Your task to perform on an android device: Show the shopping cart on bestbuy. Add "acer nitro" to the cart on bestbuy, then select checkout. Image 0: 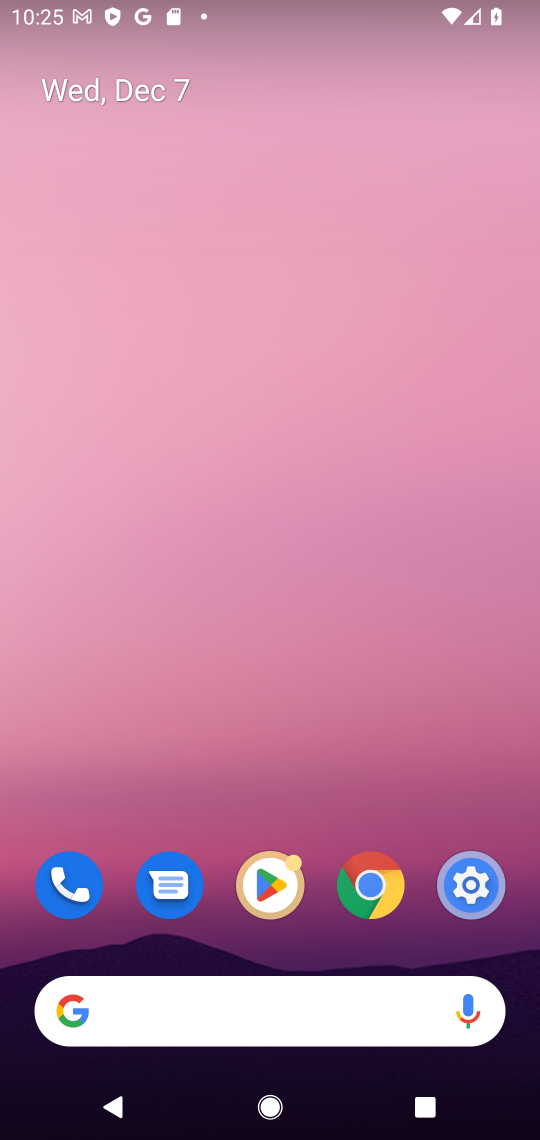
Step 0: click (376, 898)
Your task to perform on an android device: Show the shopping cart on bestbuy. Add "acer nitro" to the cart on bestbuy, then select checkout. Image 1: 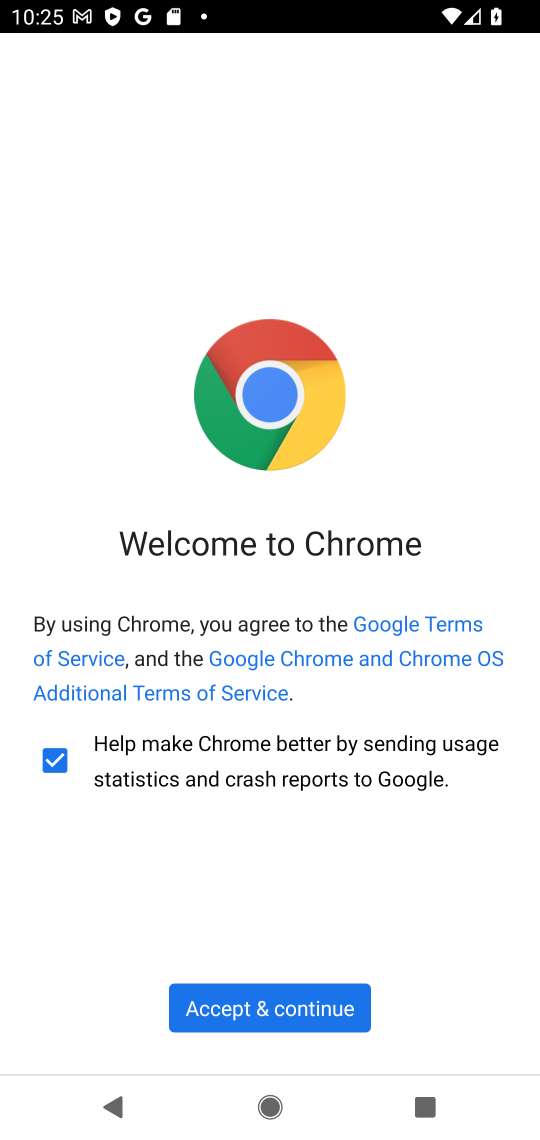
Step 1: click (305, 1008)
Your task to perform on an android device: Show the shopping cart on bestbuy. Add "acer nitro" to the cart on bestbuy, then select checkout. Image 2: 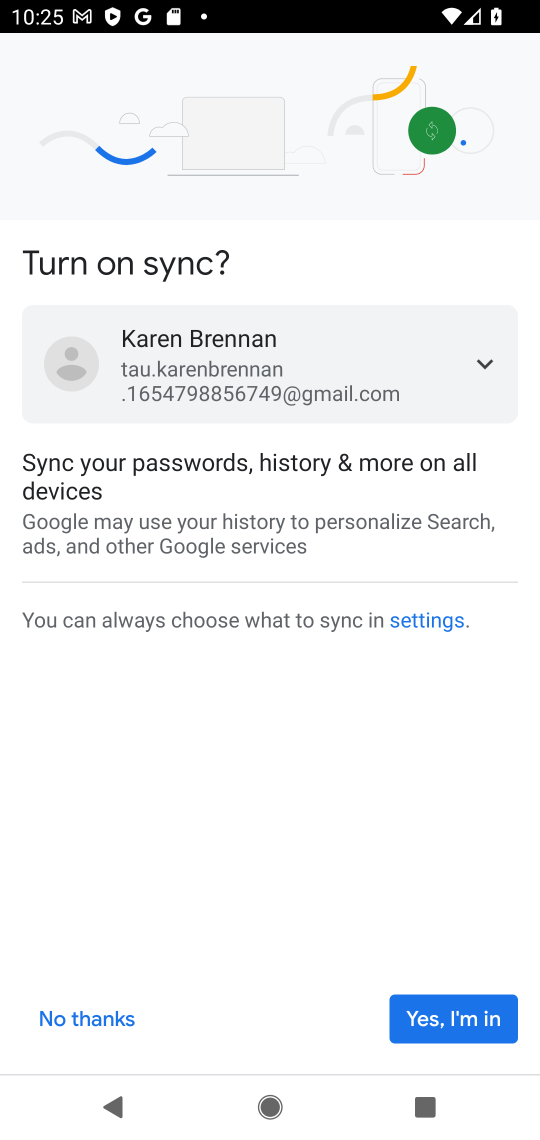
Step 2: click (439, 1021)
Your task to perform on an android device: Show the shopping cart on bestbuy. Add "acer nitro" to the cart on bestbuy, then select checkout. Image 3: 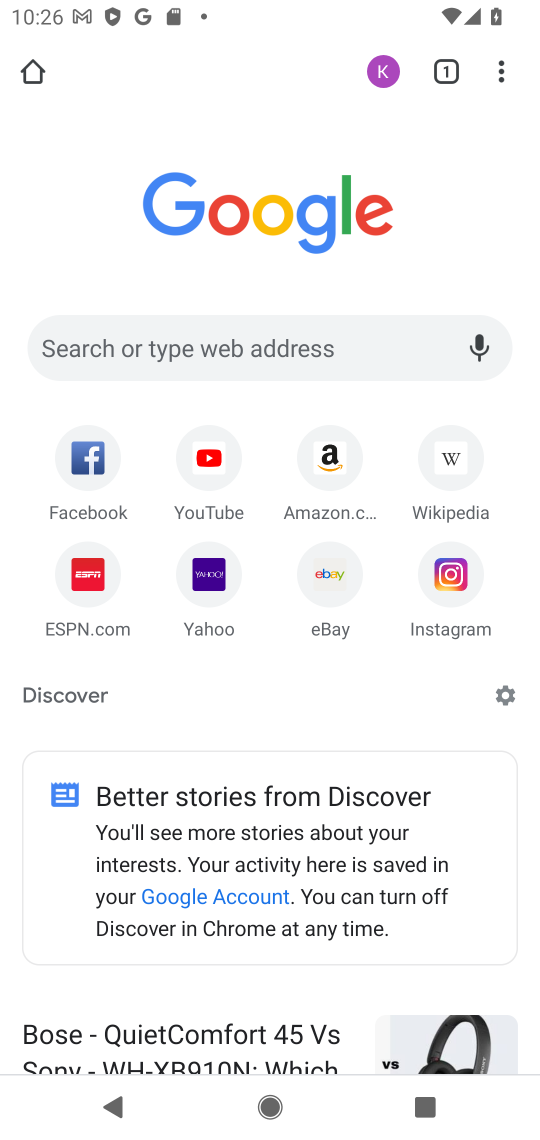
Step 3: click (267, 344)
Your task to perform on an android device: Show the shopping cart on bestbuy. Add "acer nitro" to the cart on bestbuy, then select checkout. Image 4: 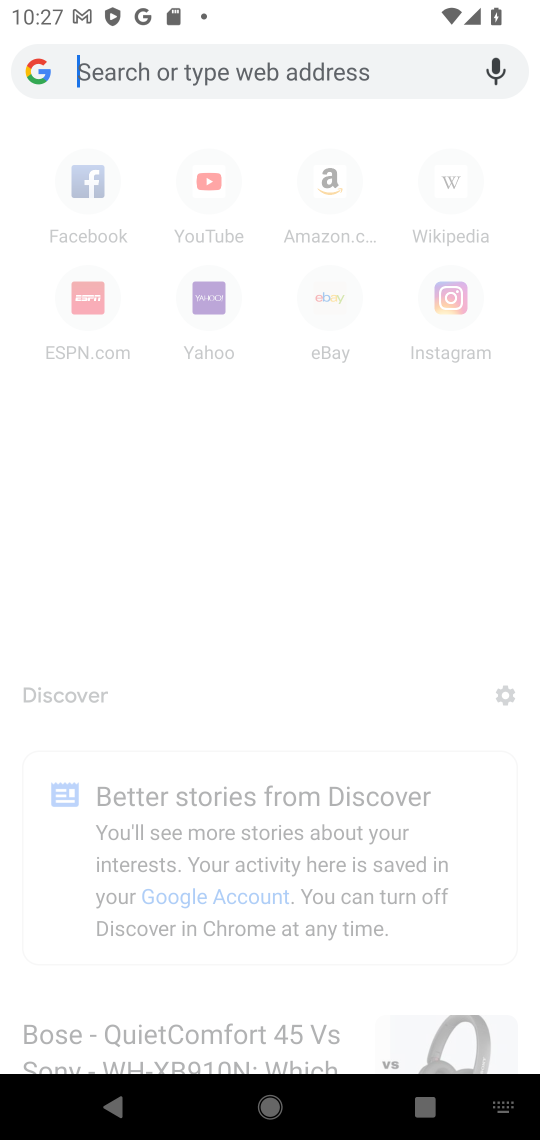
Step 4: type "bestbuy"
Your task to perform on an android device: Show the shopping cart on bestbuy. Add "acer nitro" to the cart on bestbuy, then select checkout. Image 5: 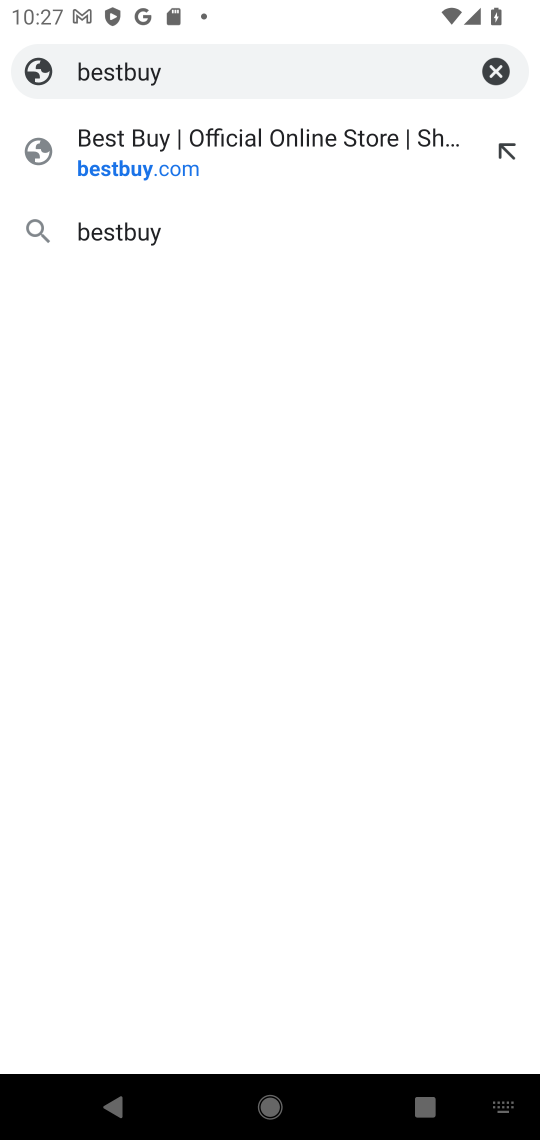
Step 5: click (291, 145)
Your task to perform on an android device: Show the shopping cart on bestbuy. Add "acer nitro" to the cart on bestbuy, then select checkout. Image 6: 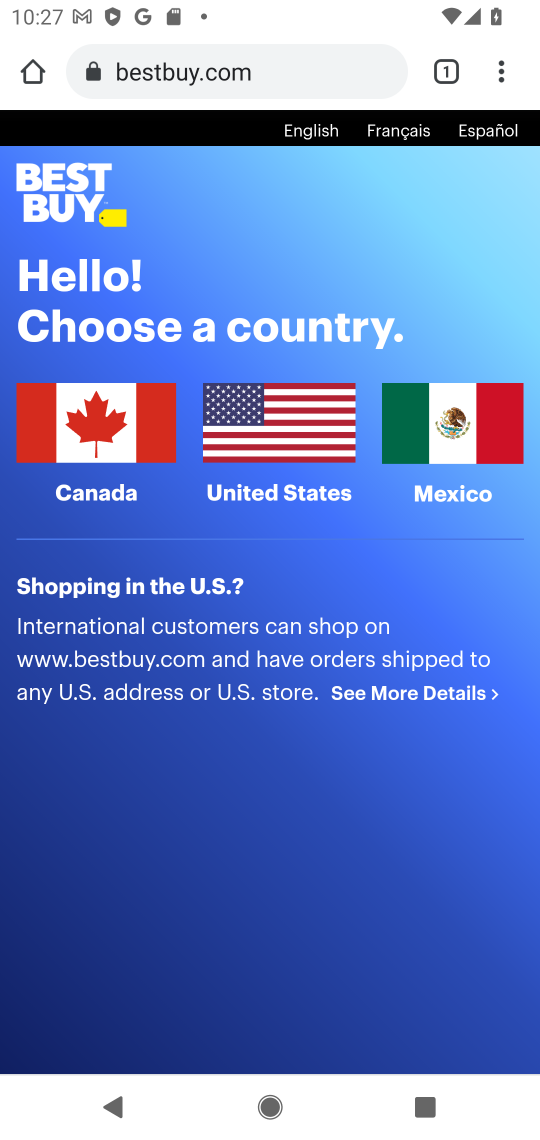
Step 6: click (267, 413)
Your task to perform on an android device: Show the shopping cart on bestbuy. Add "acer nitro" to the cart on bestbuy, then select checkout. Image 7: 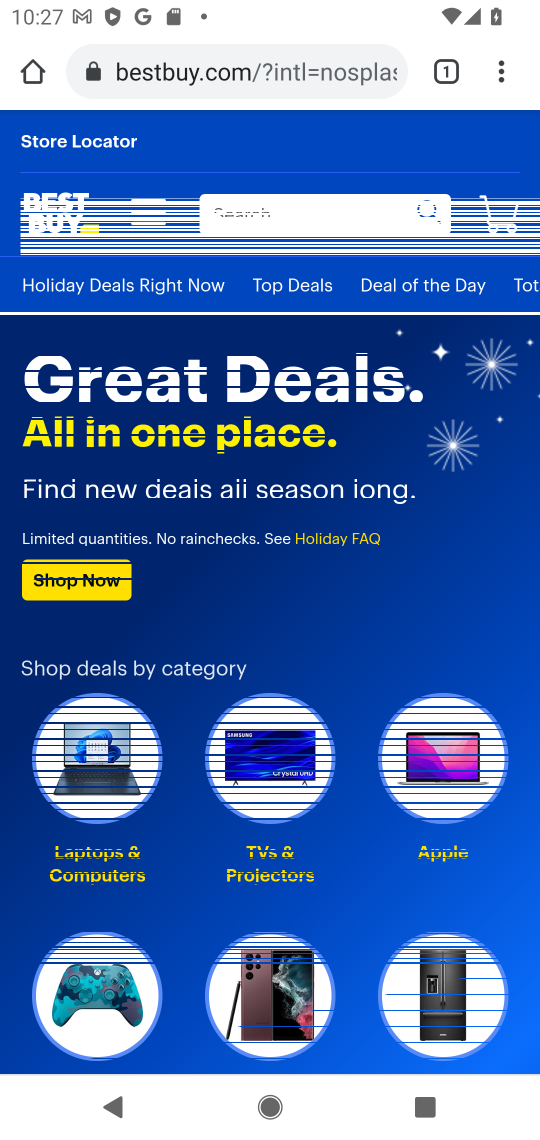
Step 7: click (313, 217)
Your task to perform on an android device: Show the shopping cart on bestbuy. Add "acer nitro" to the cart on bestbuy, then select checkout. Image 8: 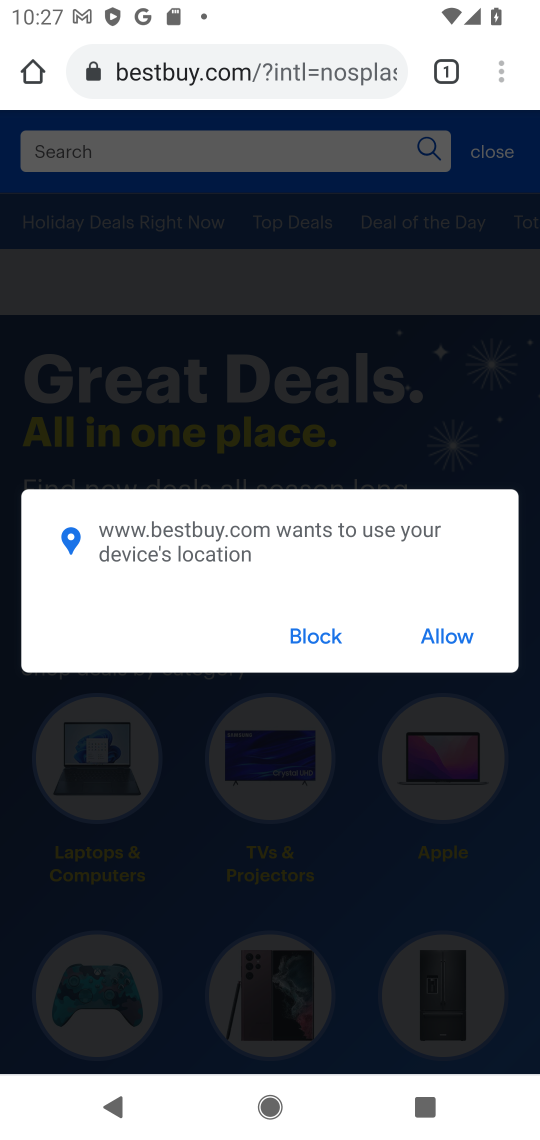
Step 8: click (321, 638)
Your task to perform on an android device: Show the shopping cart on bestbuy. Add "acer nitro" to the cart on bestbuy, then select checkout. Image 9: 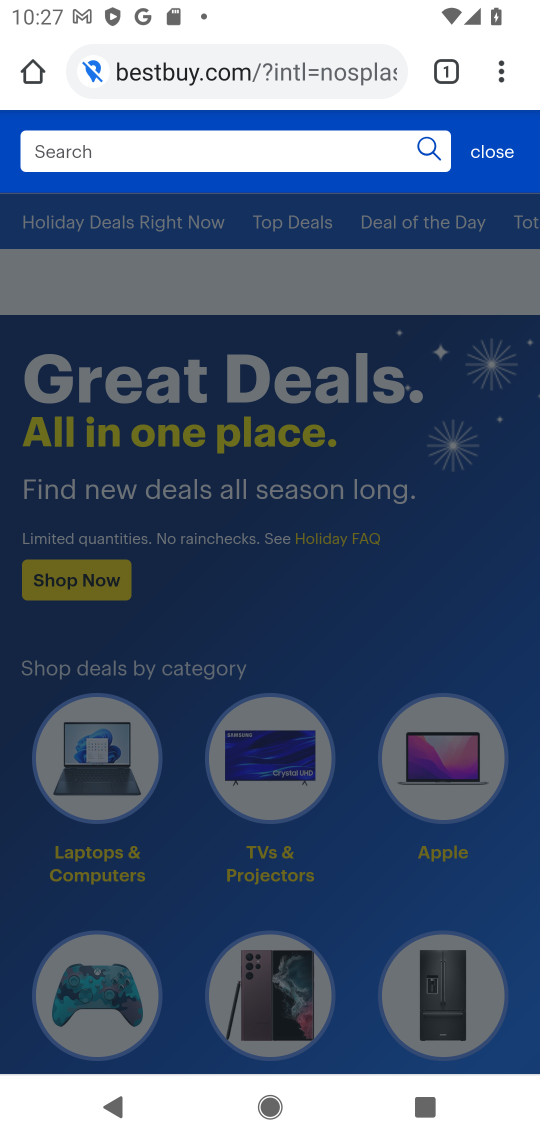
Step 9: type "acer nitro"
Your task to perform on an android device: Show the shopping cart on bestbuy. Add "acer nitro" to the cart on bestbuy, then select checkout. Image 10: 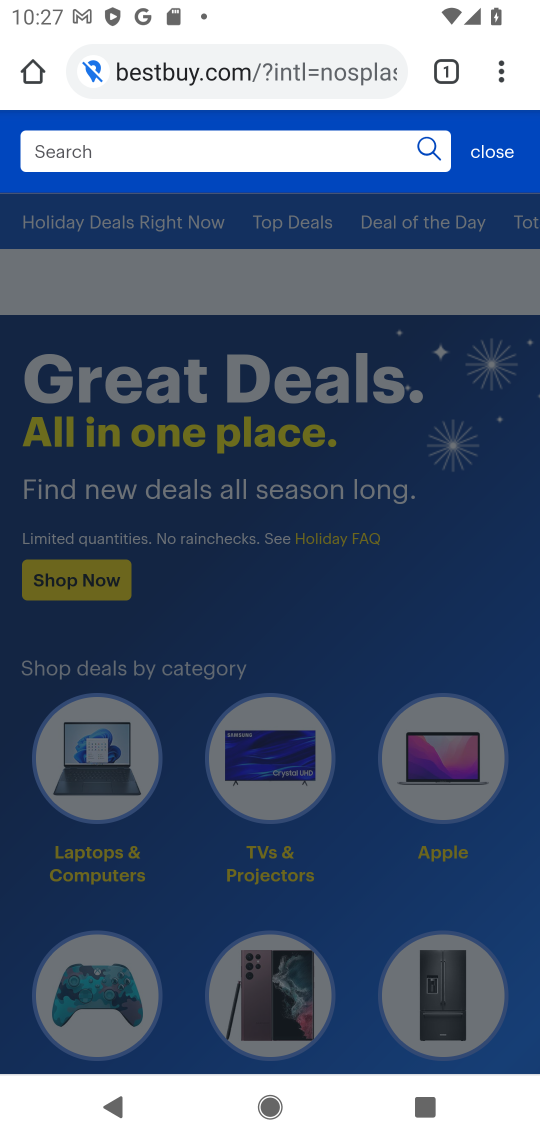
Step 10: click (260, 146)
Your task to perform on an android device: Show the shopping cart on bestbuy. Add "acer nitro" to the cart on bestbuy, then select checkout. Image 11: 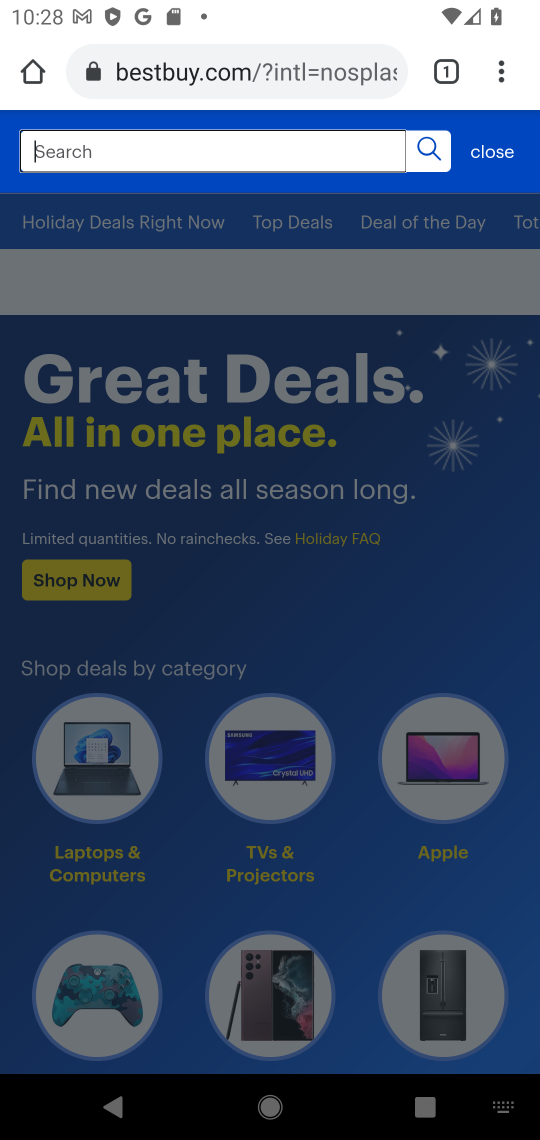
Step 11: type "acer nitro"
Your task to perform on an android device: Show the shopping cart on bestbuy. Add "acer nitro" to the cart on bestbuy, then select checkout. Image 12: 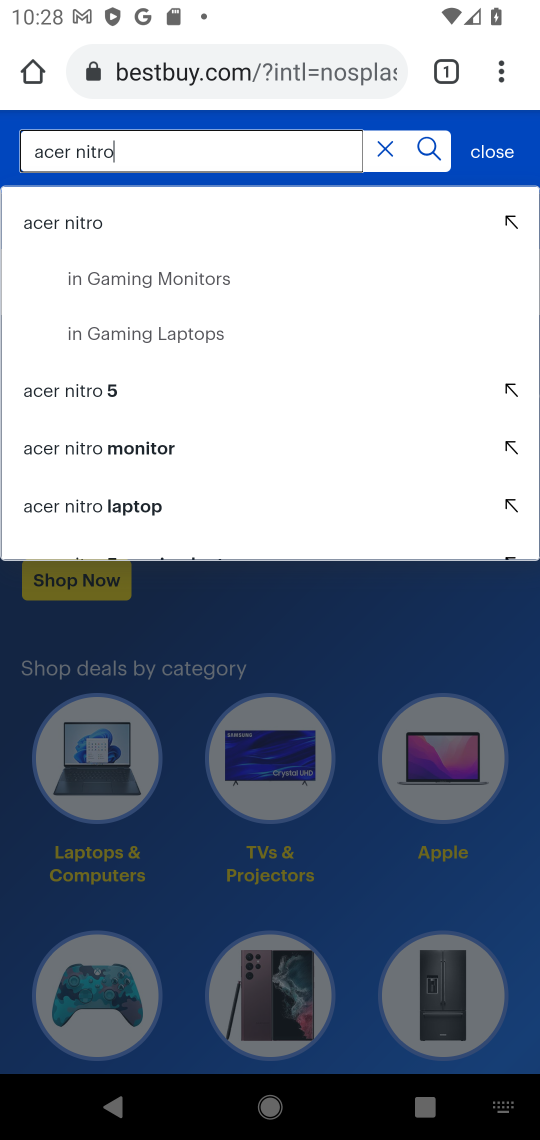
Step 12: click (87, 224)
Your task to perform on an android device: Show the shopping cart on bestbuy. Add "acer nitro" to the cart on bestbuy, then select checkout. Image 13: 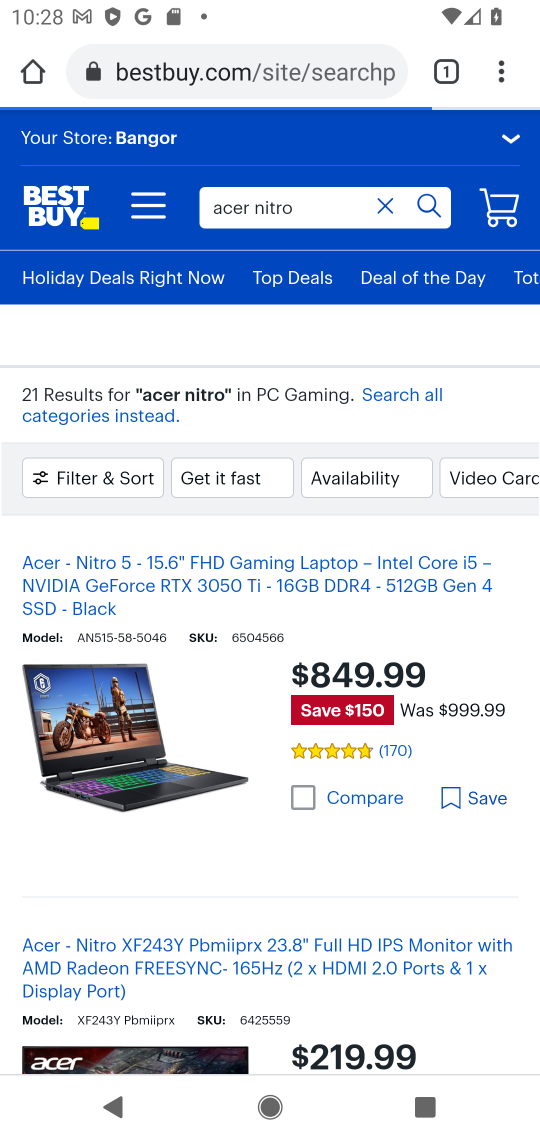
Step 13: click (119, 740)
Your task to perform on an android device: Show the shopping cart on bestbuy. Add "acer nitro" to the cart on bestbuy, then select checkout. Image 14: 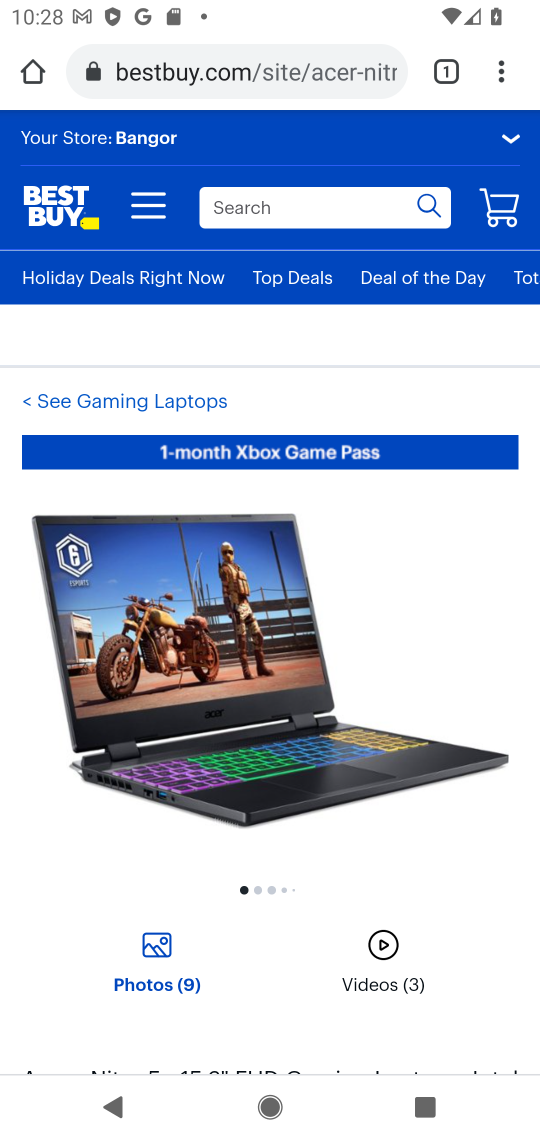
Step 14: drag from (294, 1013) to (244, 296)
Your task to perform on an android device: Show the shopping cart on bestbuy. Add "acer nitro" to the cart on bestbuy, then select checkout. Image 15: 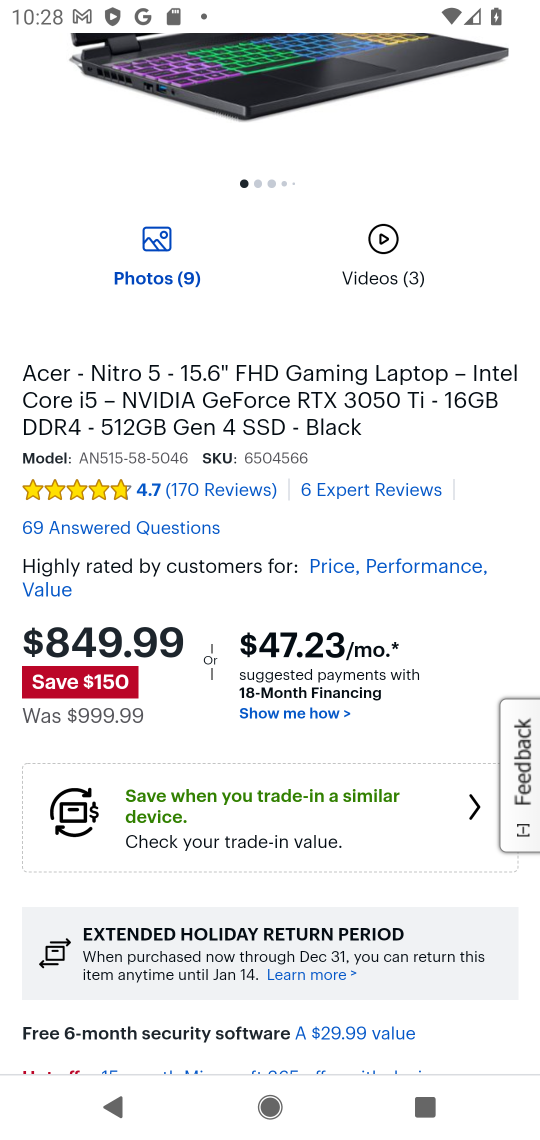
Step 15: drag from (394, 994) to (344, 159)
Your task to perform on an android device: Show the shopping cart on bestbuy. Add "acer nitro" to the cart on bestbuy, then select checkout. Image 16: 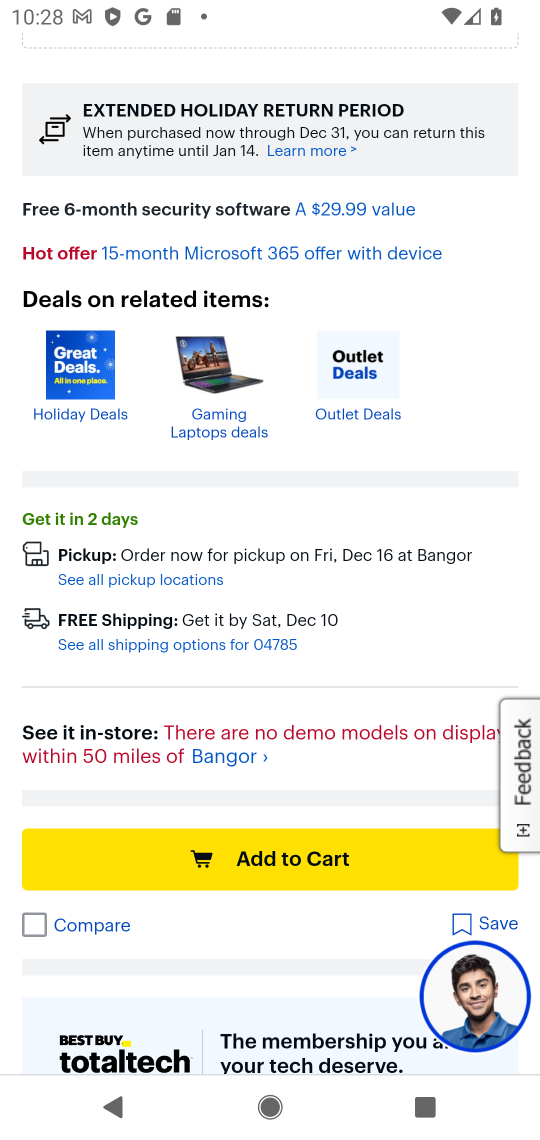
Step 16: click (274, 858)
Your task to perform on an android device: Show the shopping cart on bestbuy. Add "acer nitro" to the cart on bestbuy, then select checkout. Image 17: 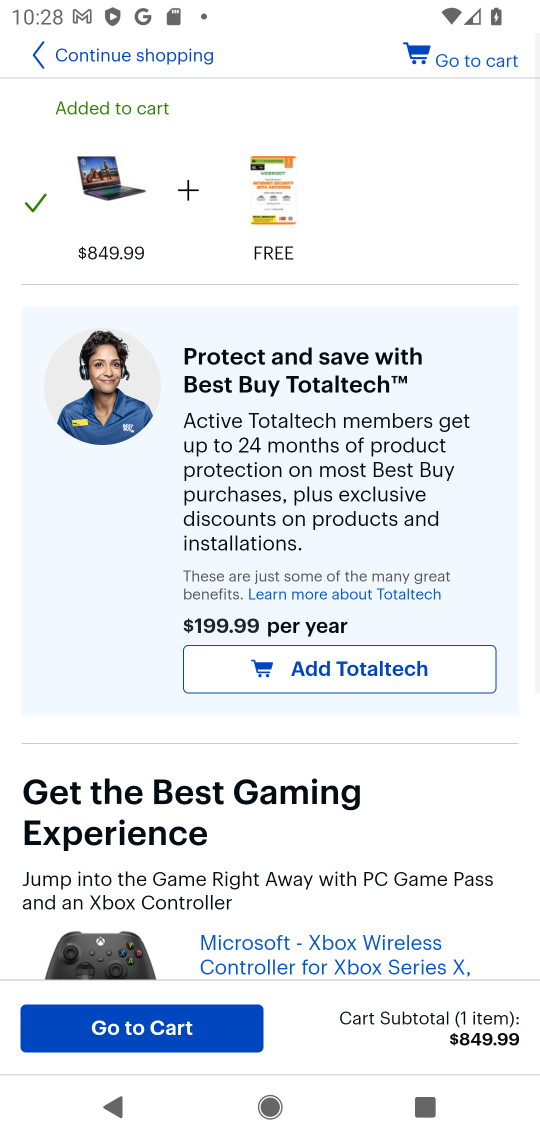
Step 17: click (159, 1023)
Your task to perform on an android device: Show the shopping cart on bestbuy. Add "acer nitro" to the cart on bestbuy, then select checkout. Image 18: 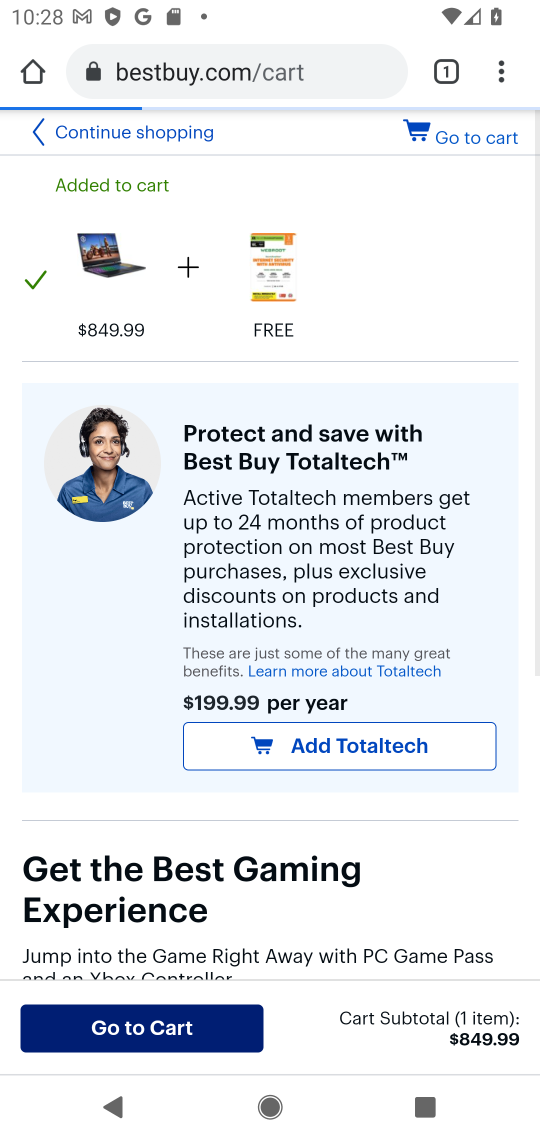
Step 18: task complete